Your task to perform on an android device: What is the recent news? Image 0: 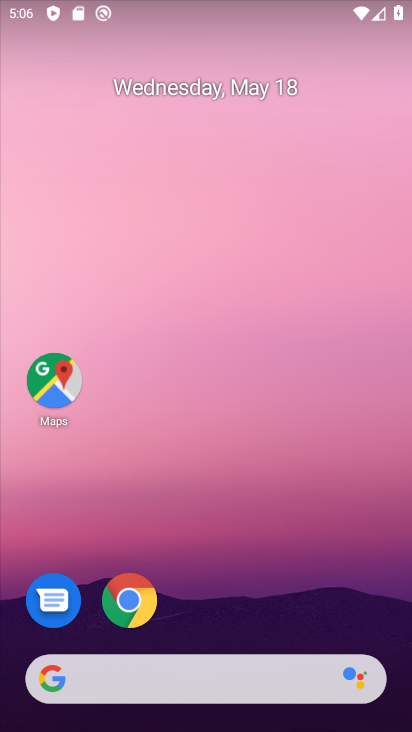
Step 0: drag from (216, 612) to (161, 130)
Your task to perform on an android device: What is the recent news? Image 1: 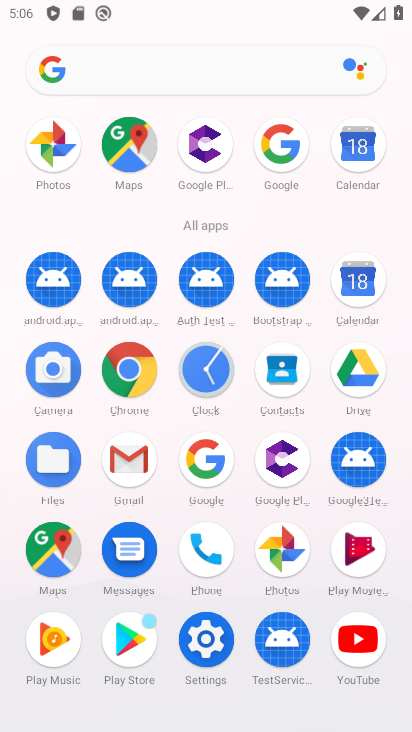
Step 1: click (274, 145)
Your task to perform on an android device: What is the recent news? Image 2: 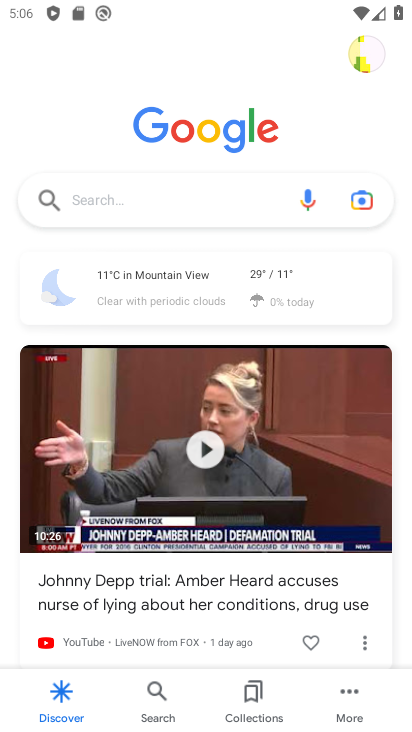
Step 2: click (154, 191)
Your task to perform on an android device: What is the recent news? Image 3: 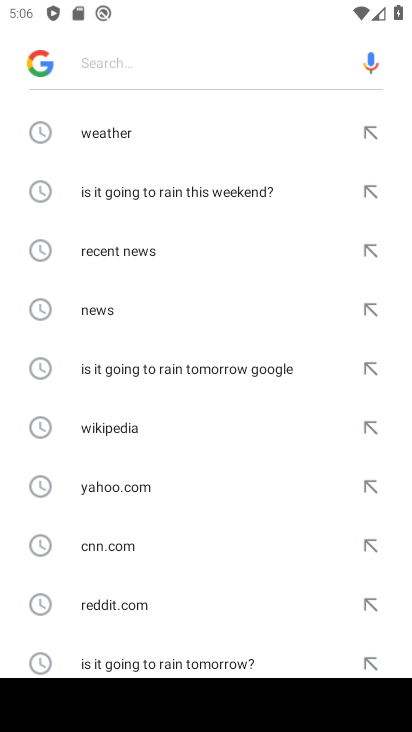
Step 3: type "recent news"
Your task to perform on an android device: What is the recent news? Image 4: 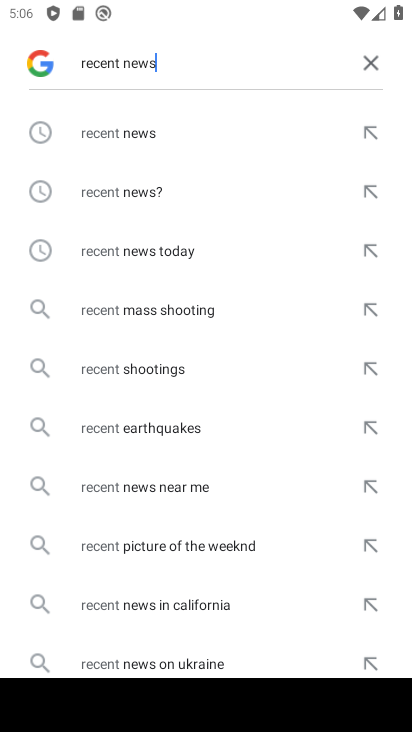
Step 4: type ""
Your task to perform on an android device: What is the recent news? Image 5: 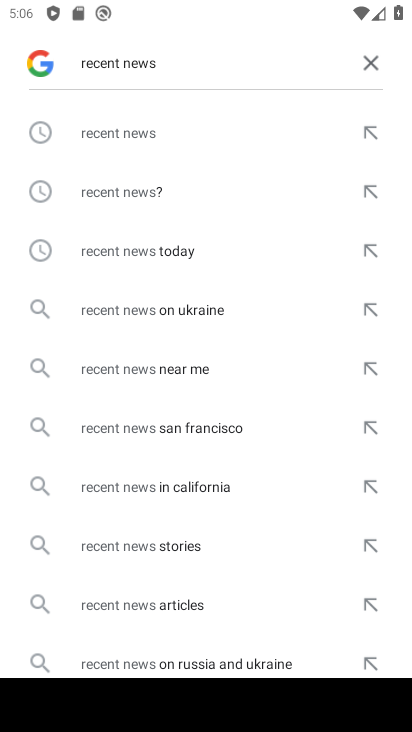
Step 5: click (113, 140)
Your task to perform on an android device: What is the recent news? Image 6: 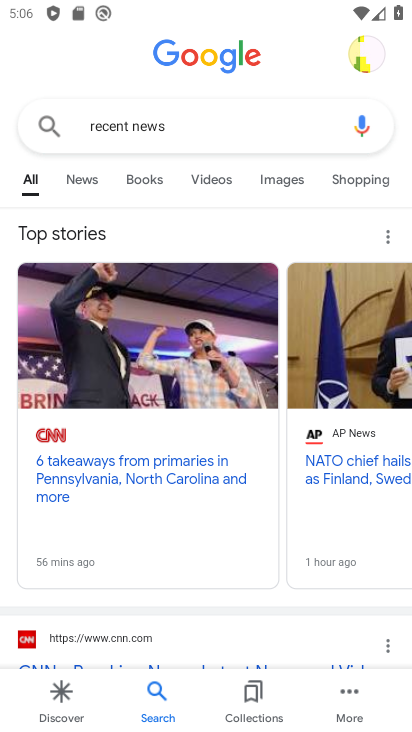
Step 6: task complete